Your task to perform on an android device: Open Amazon Image 0: 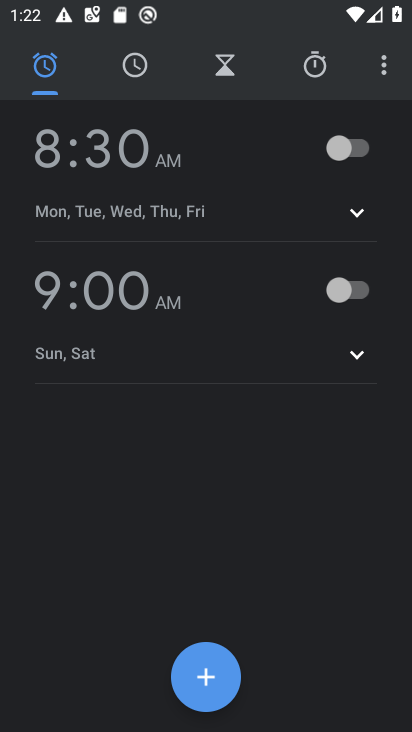
Step 0: press home button
Your task to perform on an android device: Open Amazon Image 1: 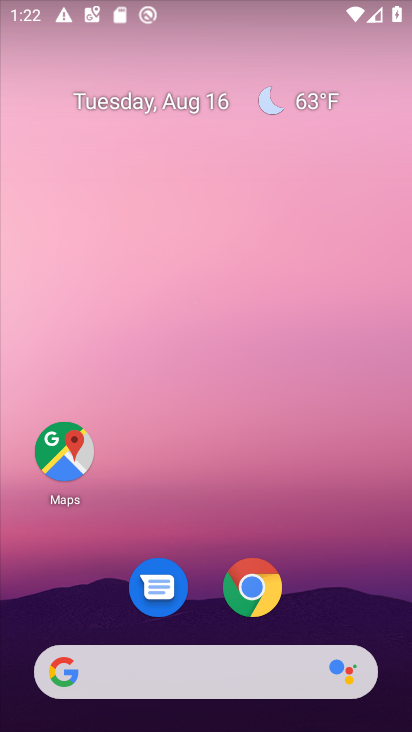
Step 1: drag from (265, 658) to (280, 191)
Your task to perform on an android device: Open Amazon Image 2: 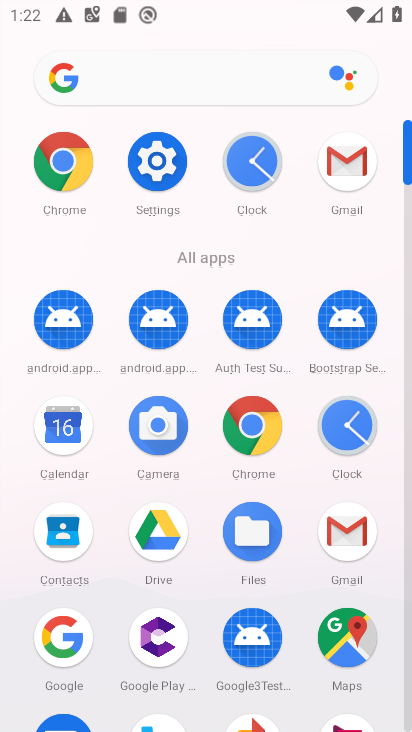
Step 2: click (57, 644)
Your task to perform on an android device: Open Amazon Image 3: 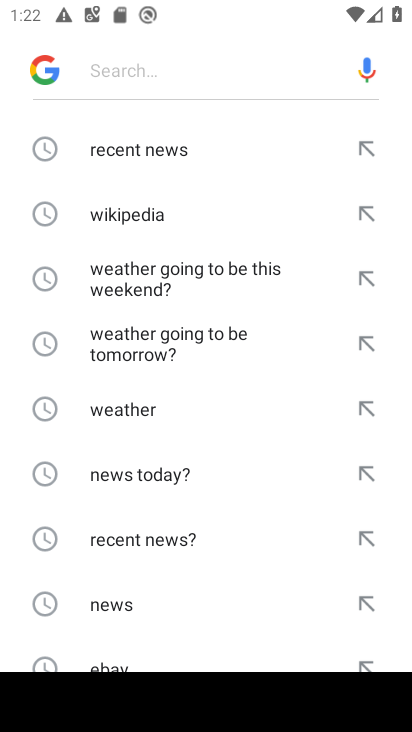
Step 3: click (124, 77)
Your task to perform on an android device: Open Amazon Image 4: 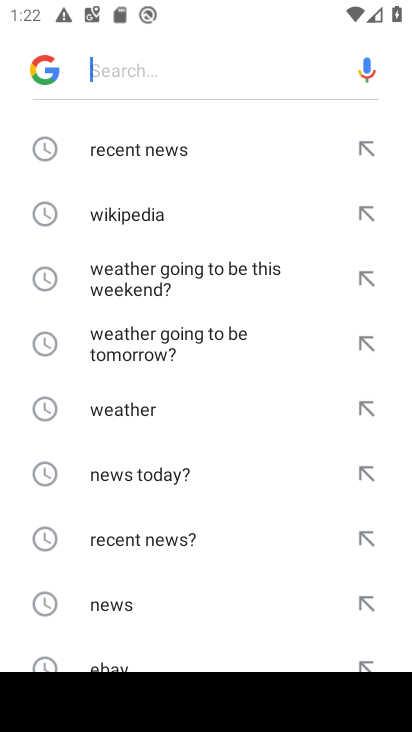
Step 4: drag from (175, 544) to (142, 163)
Your task to perform on an android device: Open Amazon Image 5: 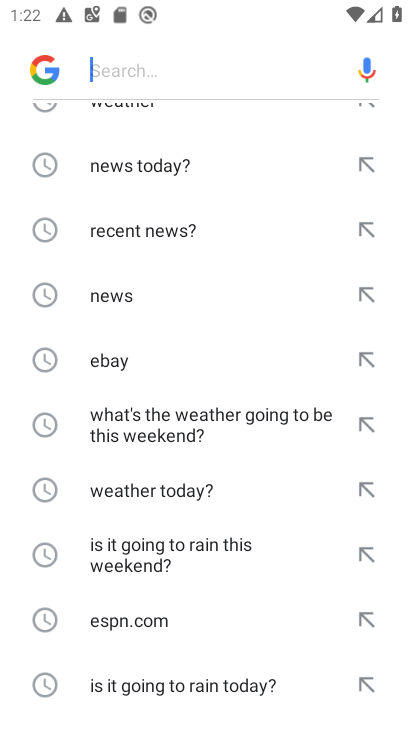
Step 5: drag from (168, 617) to (158, 213)
Your task to perform on an android device: Open Amazon Image 6: 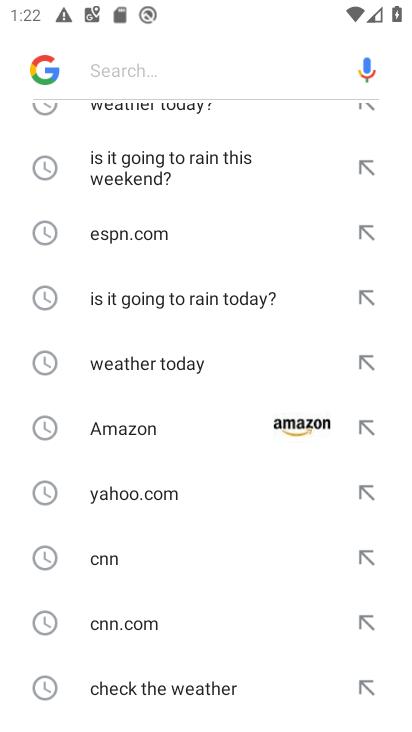
Step 6: click (201, 419)
Your task to perform on an android device: Open Amazon Image 7: 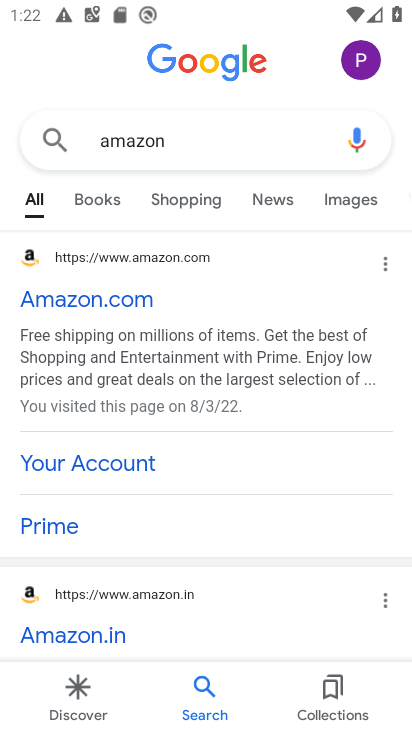
Step 7: click (69, 307)
Your task to perform on an android device: Open Amazon Image 8: 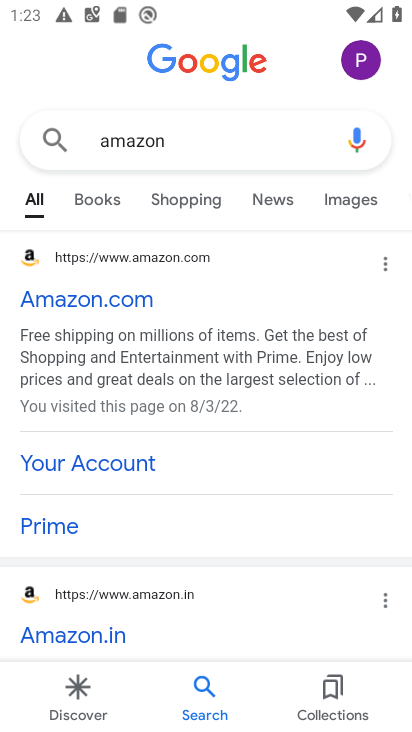
Step 8: click (67, 300)
Your task to perform on an android device: Open Amazon Image 9: 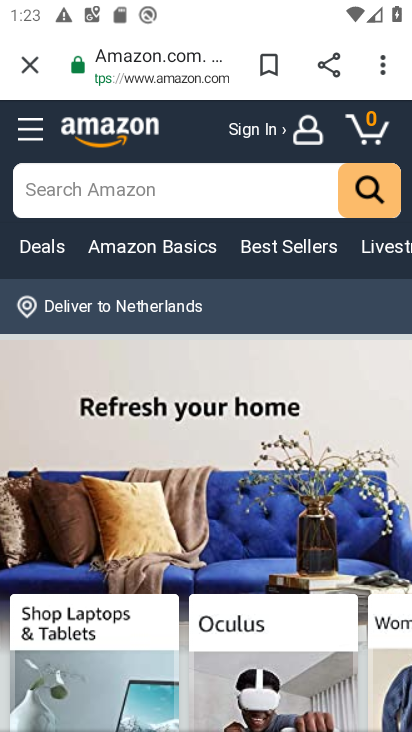
Step 9: task complete